Your task to perform on an android device: Turn on the flashlight Image 0: 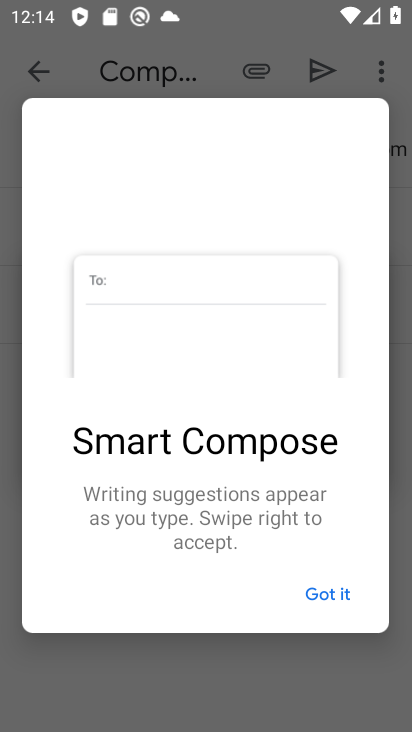
Step 0: press home button
Your task to perform on an android device: Turn on the flashlight Image 1: 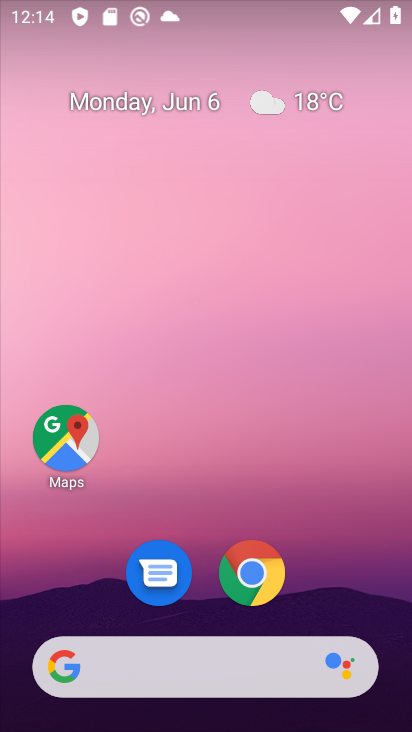
Step 1: task complete